Your task to perform on an android device: open app "Truecaller" Image 0: 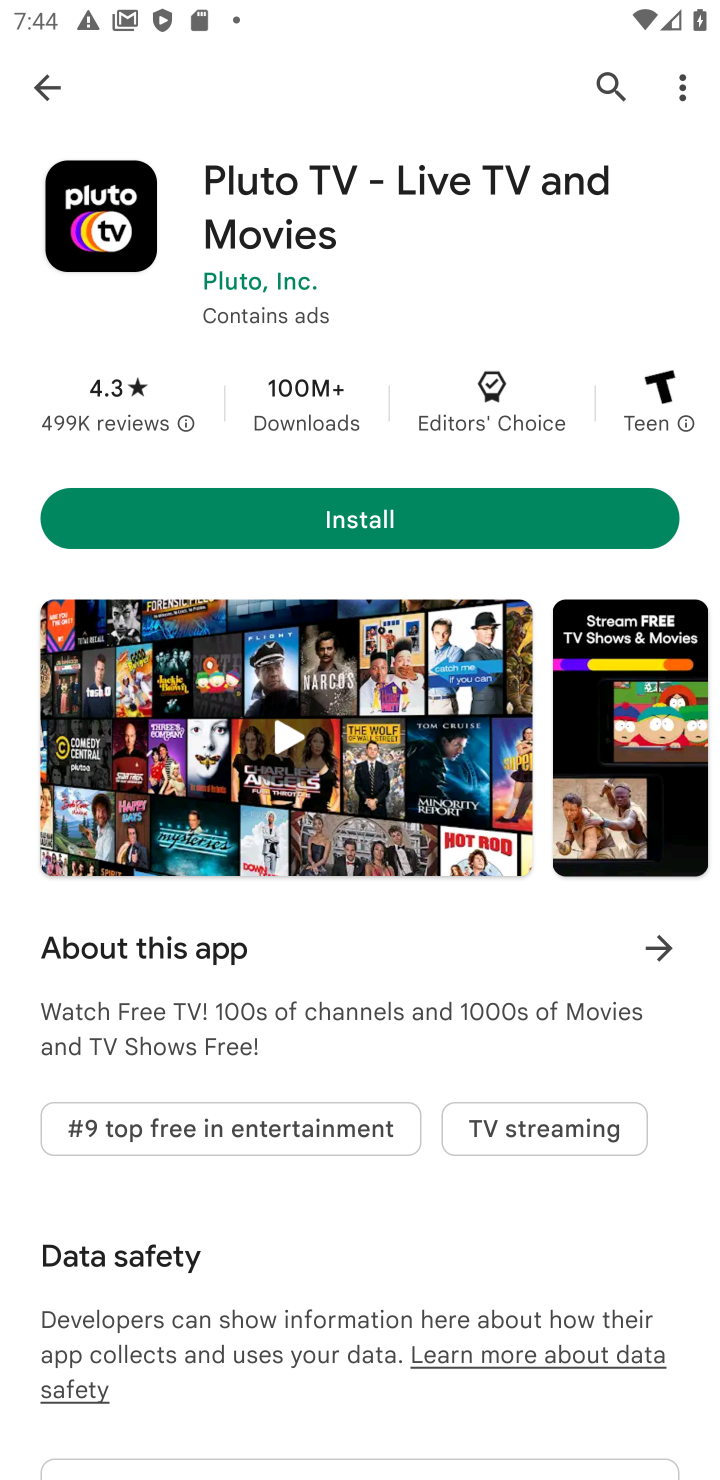
Step 0: press home button
Your task to perform on an android device: open app "Truecaller" Image 1: 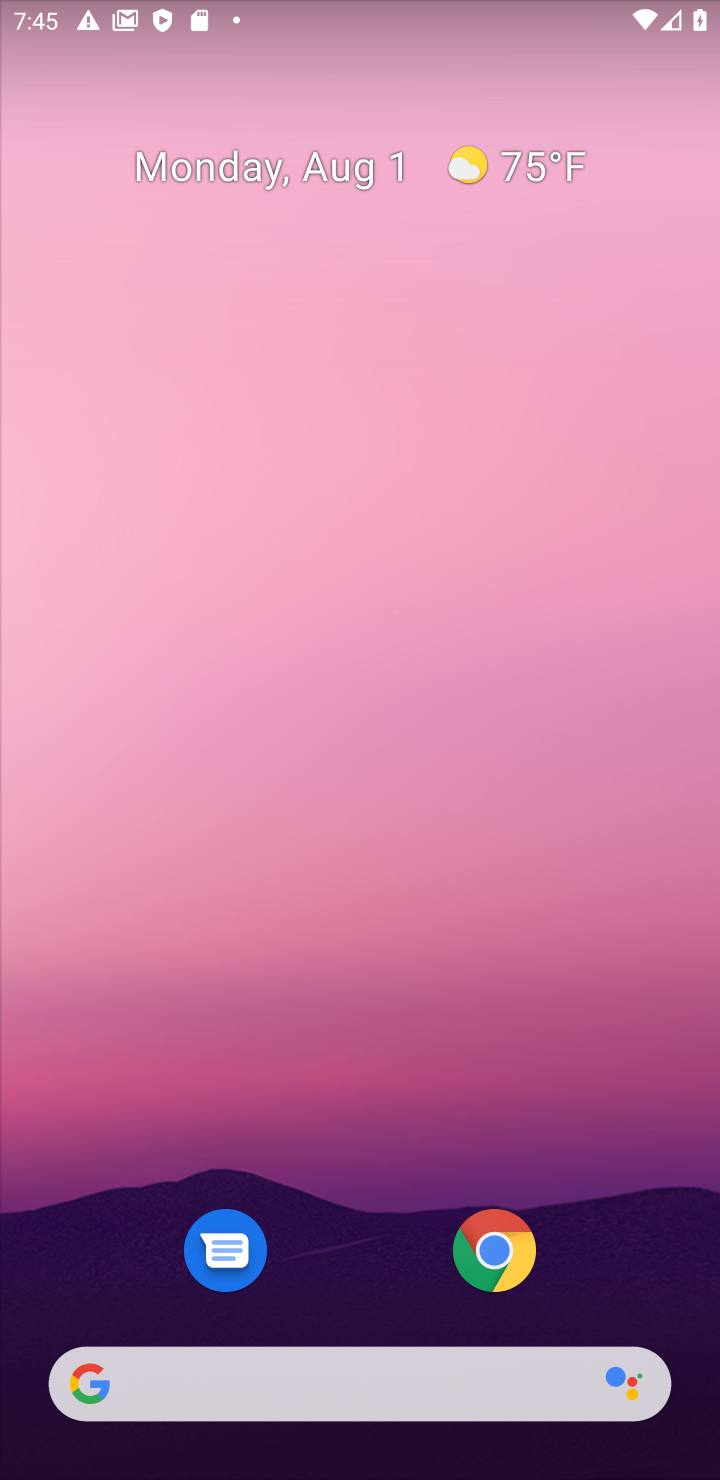
Step 1: drag from (629, 1110) to (496, 760)
Your task to perform on an android device: open app "Truecaller" Image 2: 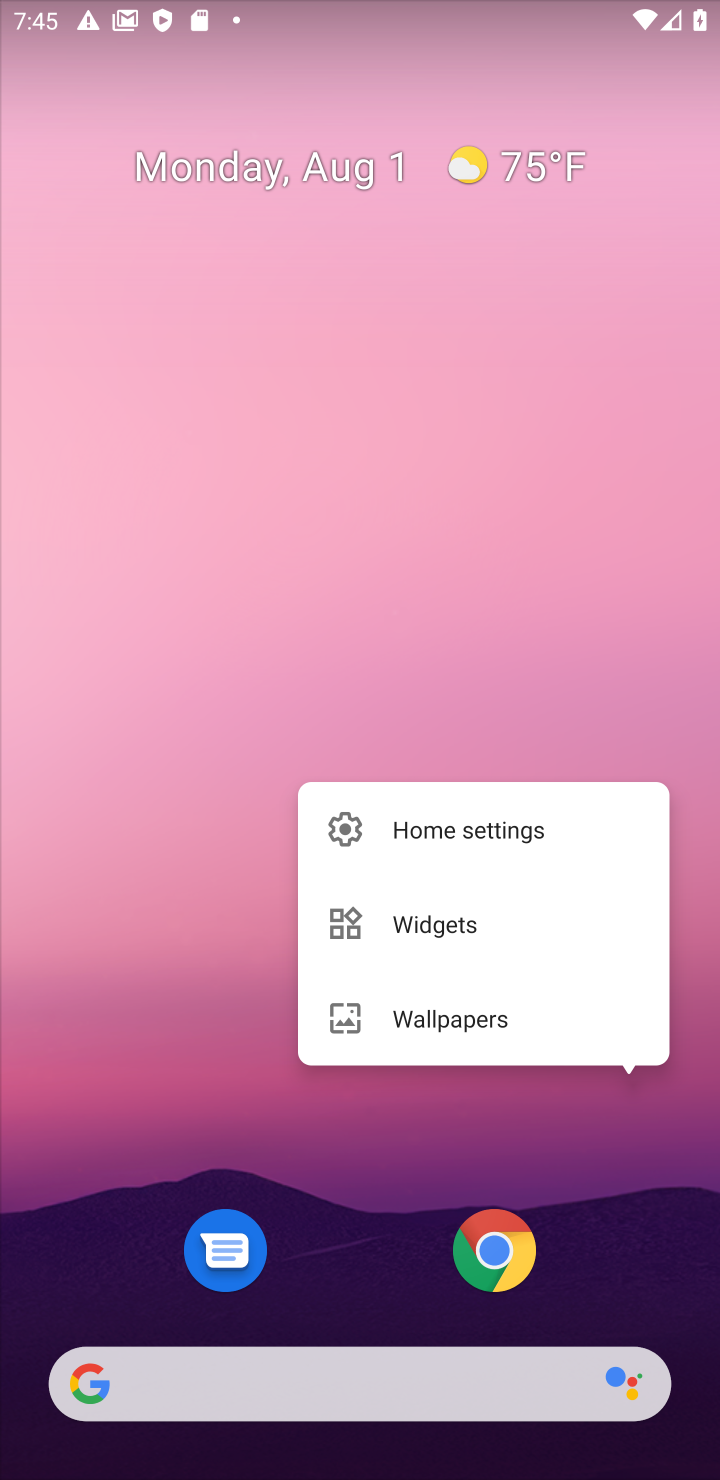
Step 2: click (469, 742)
Your task to perform on an android device: open app "Truecaller" Image 3: 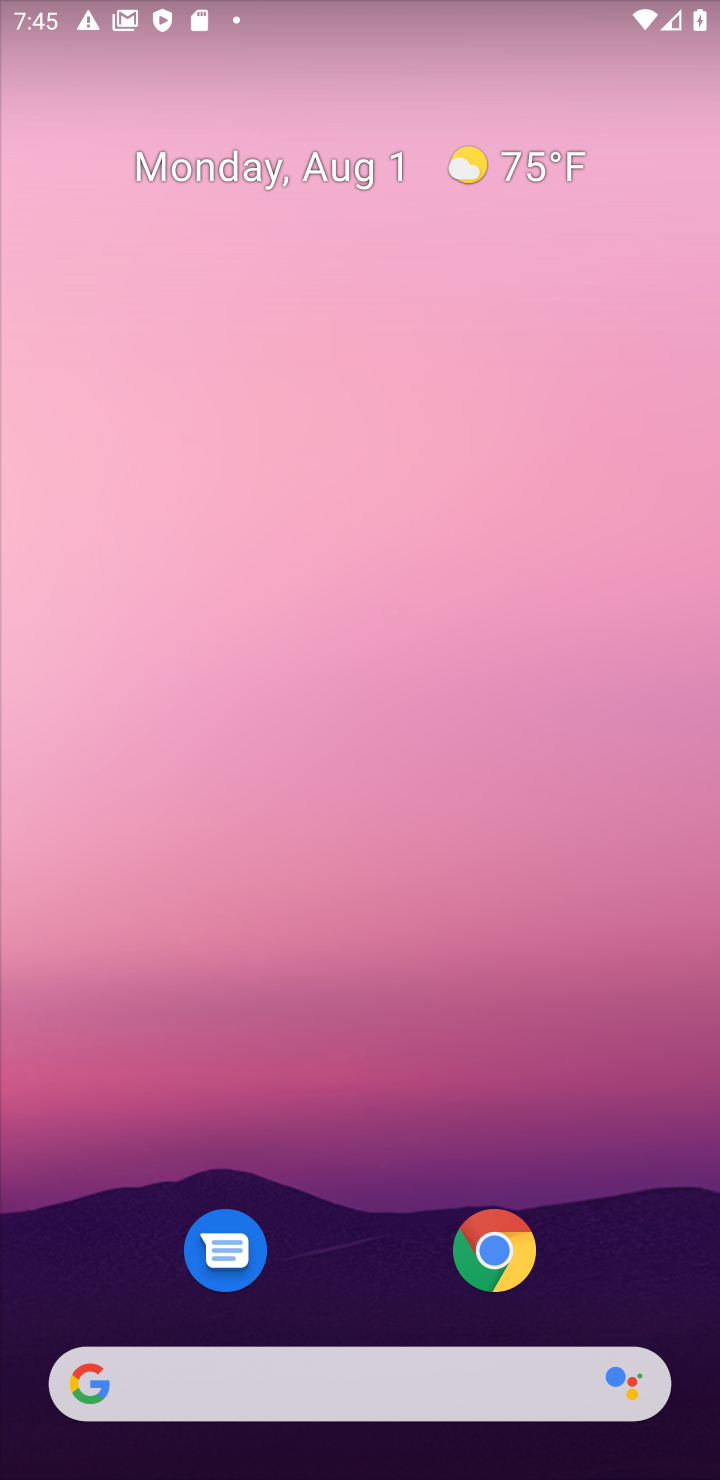
Step 3: click (549, 1081)
Your task to perform on an android device: open app "Truecaller" Image 4: 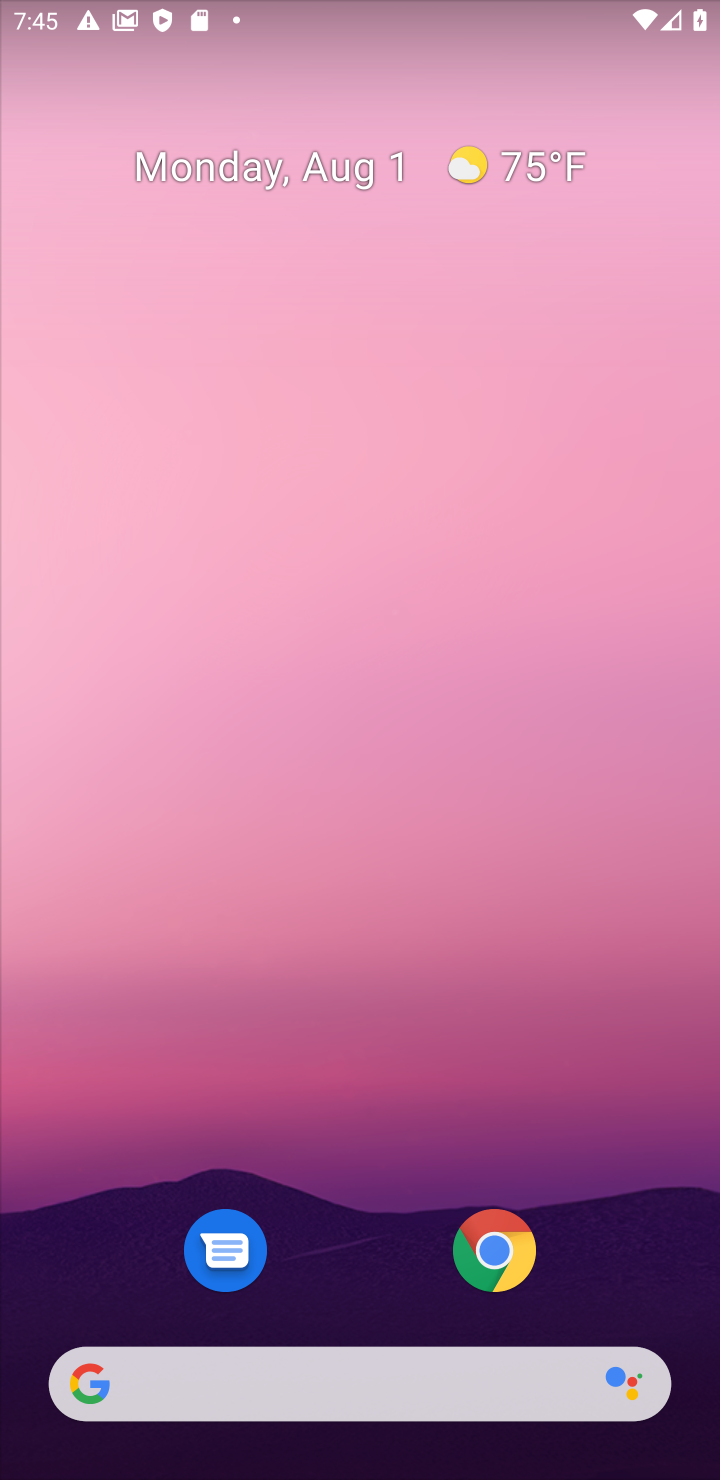
Step 4: drag from (546, 1109) to (418, 352)
Your task to perform on an android device: open app "Truecaller" Image 5: 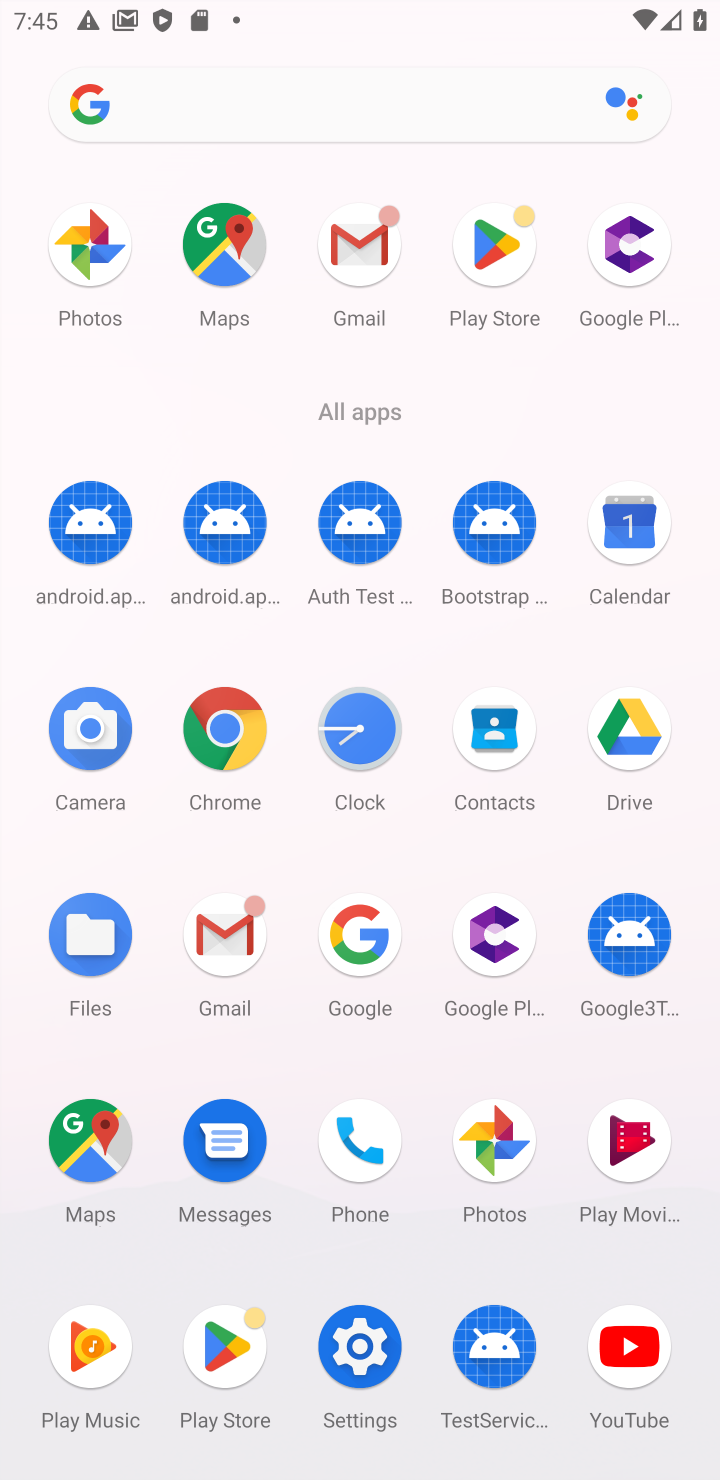
Step 5: click (219, 1330)
Your task to perform on an android device: open app "Truecaller" Image 6: 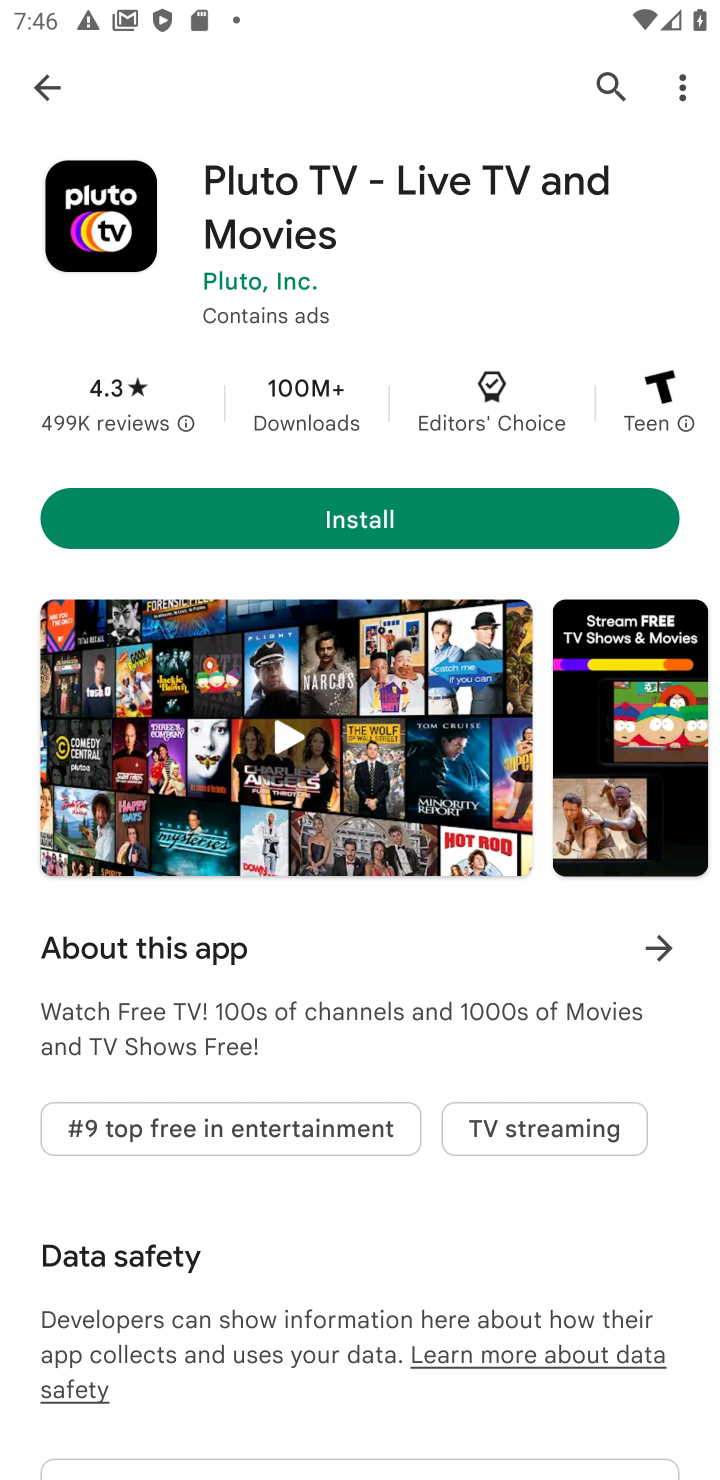
Step 6: click (610, 79)
Your task to perform on an android device: open app "Truecaller" Image 7: 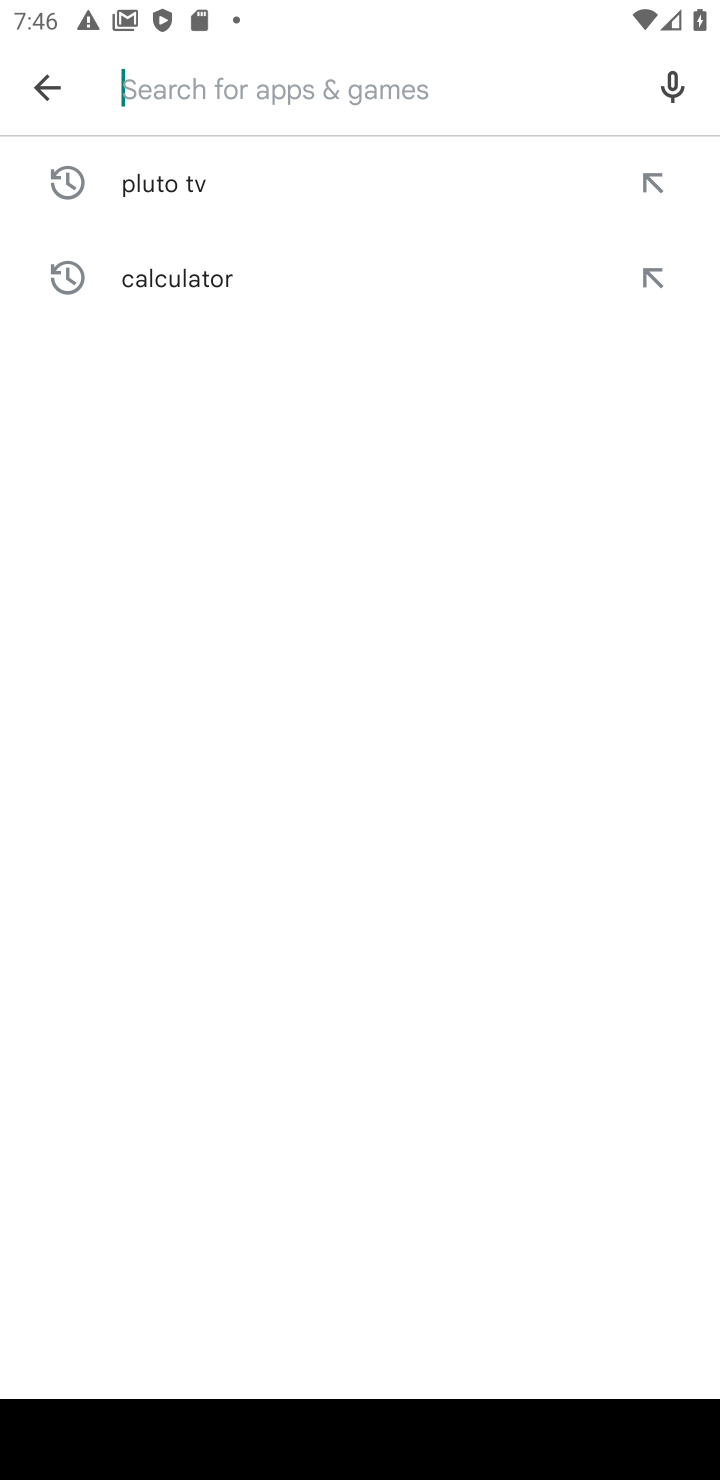
Step 7: type "truecaller"
Your task to perform on an android device: open app "Truecaller" Image 8: 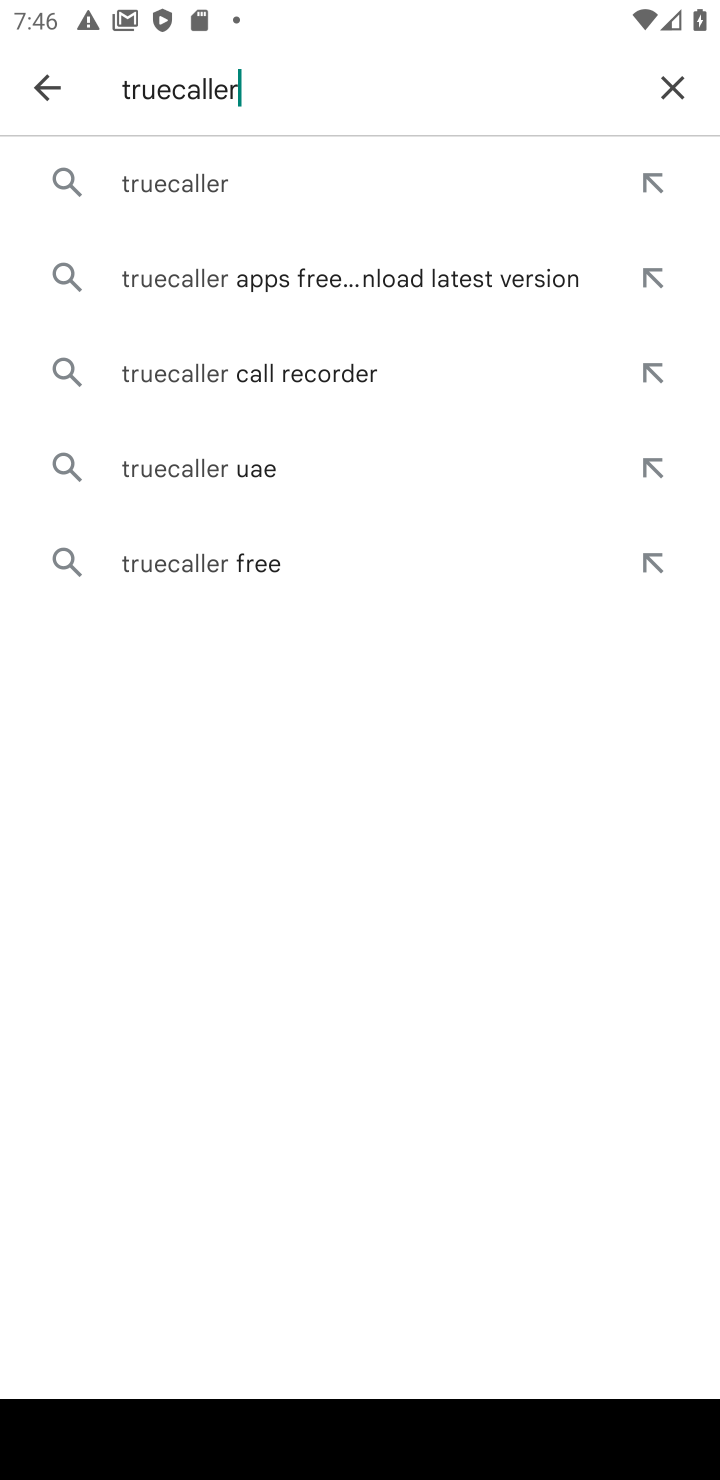
Step 8: click (411, 183)
Your task to perform on an android device: open app "Truecaller" Image 9: 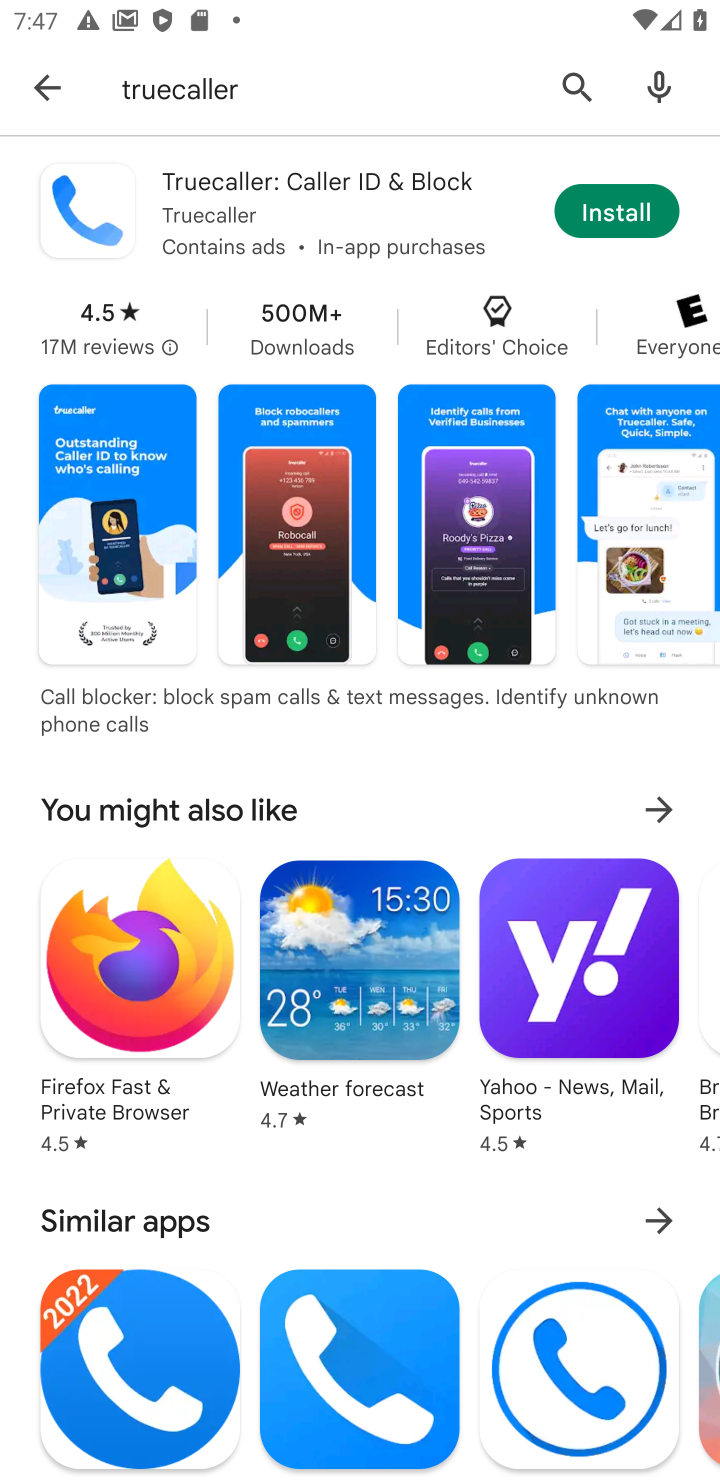
Step 9: task complete